Your task to perform on an android device: empty trash in the gmail app Image 0: 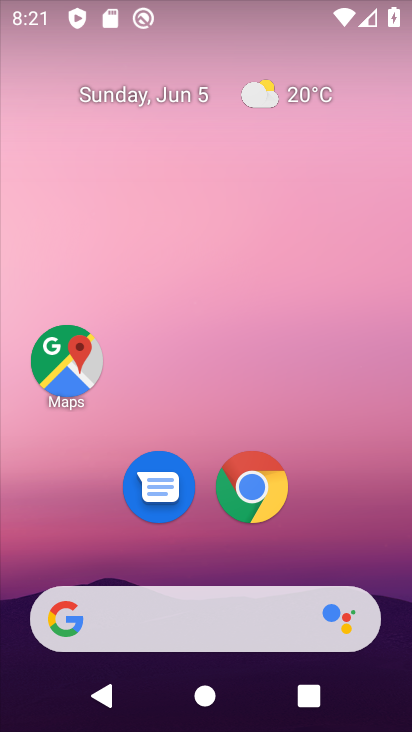
Step 0: drag from (301, 382) to (301, 250)
Your task to perform on an android device: empty trash in the gmail app Image 1: 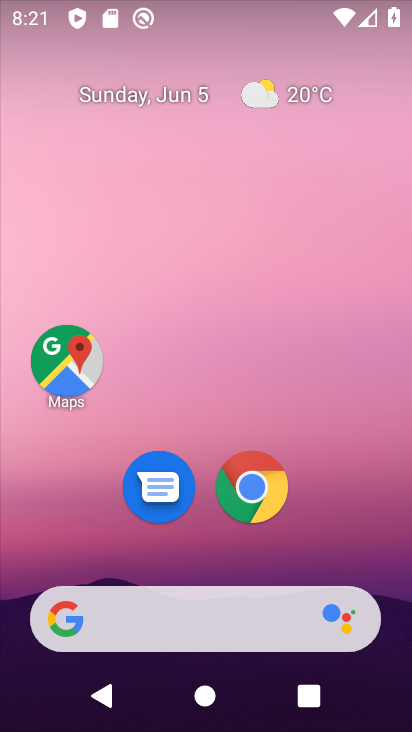
Step 1: drag from (212, 582) to (198, 124)
Your task to perform on an android device: empty trash in the gmail app Image 2: 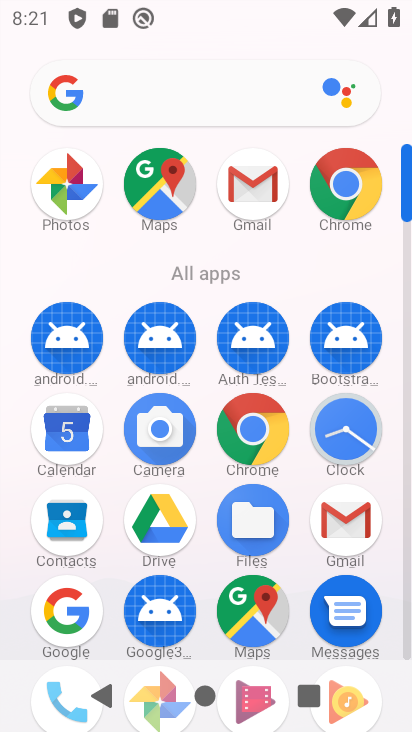
Step 2: click (347, 509)
Your task to perform on an android device: empty trash in the gmail app Image 3: 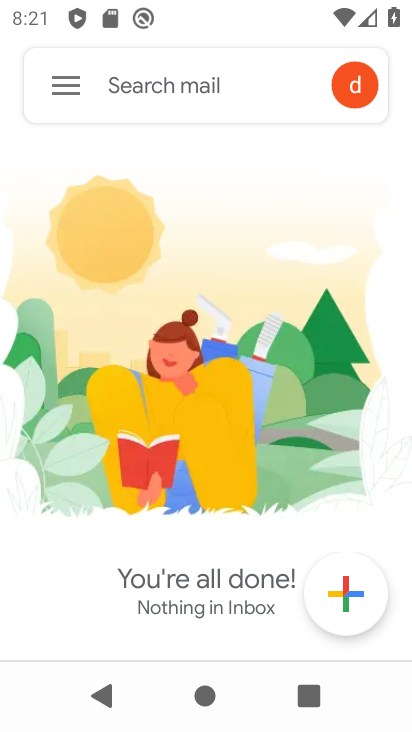
Step 3: click (64, 84)
Your task to perform on an android device: empty trash in the gmail app Image 4: 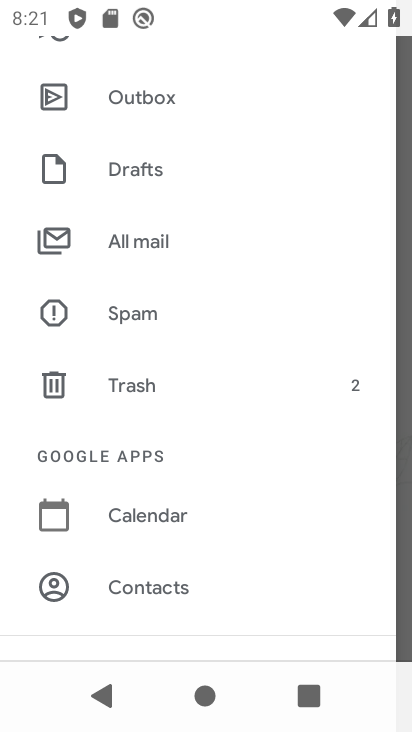
Step 4: click (157, 387)
Your task to perform on an android device: empty trash in the gmail app Image 5: 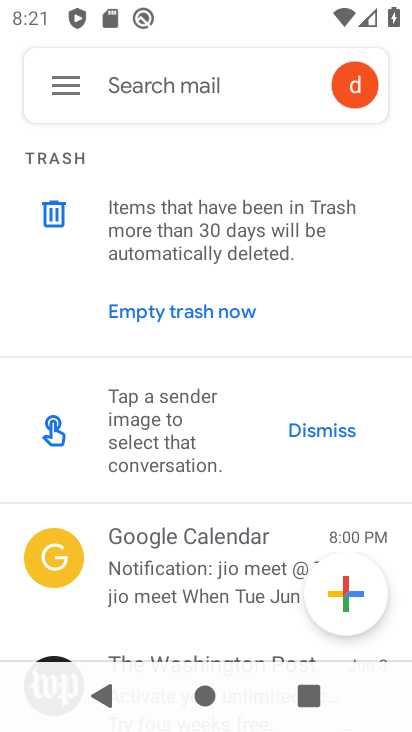
Step 5: click (61, 204)
Your task to perform on an android device: empty trash in the gmail app Image 6: 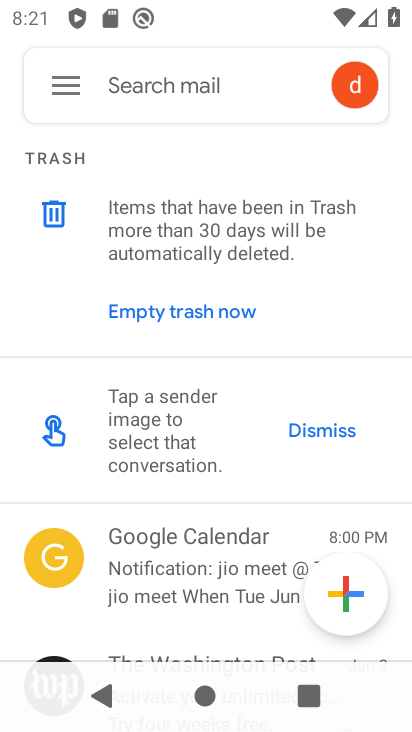
Step 6: click (165, 298)
Your task to perform on an android device: empty trash in the gmail app Image 7: 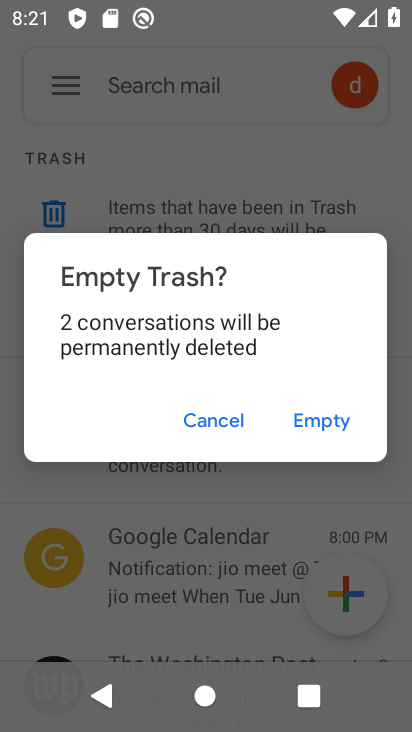
Step 7: click (330, 425)
Your task to perform on an android device: empty trash in the gmail app Image 8: 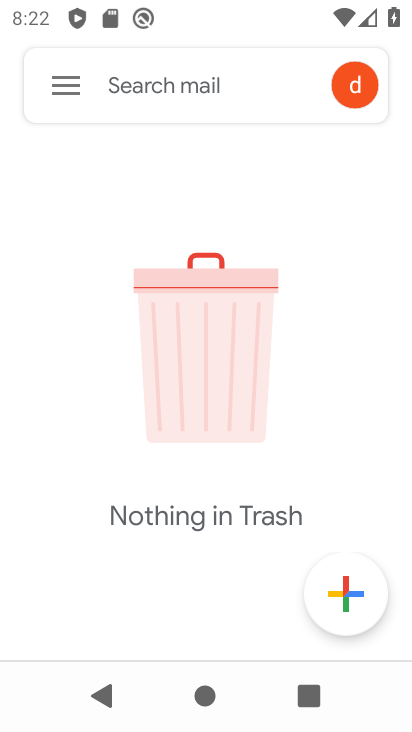
Step 8: task complete